Your task to perform on an android device: toggle airplane mode Image 0: 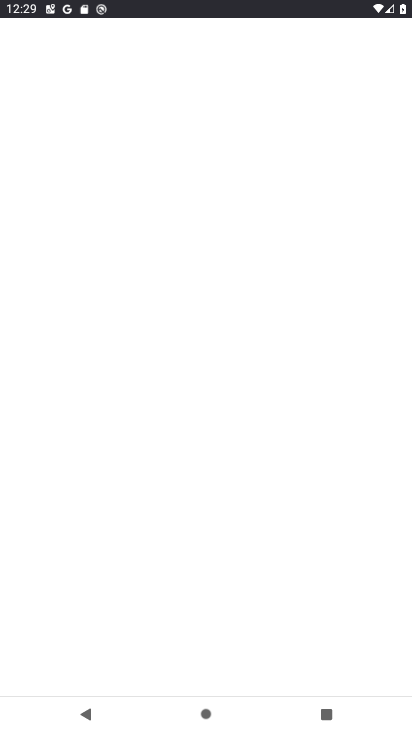
Step 0: press home button
Your task to perform on an android device: toggle airplane mode Image 1: 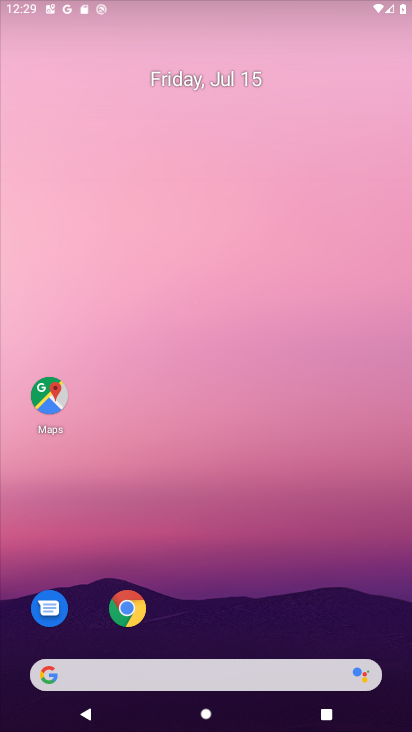
Step 1: drag from (217, 603) to (112, 55)
Your task to perform on an android device: toggle airplane mode Image 2: 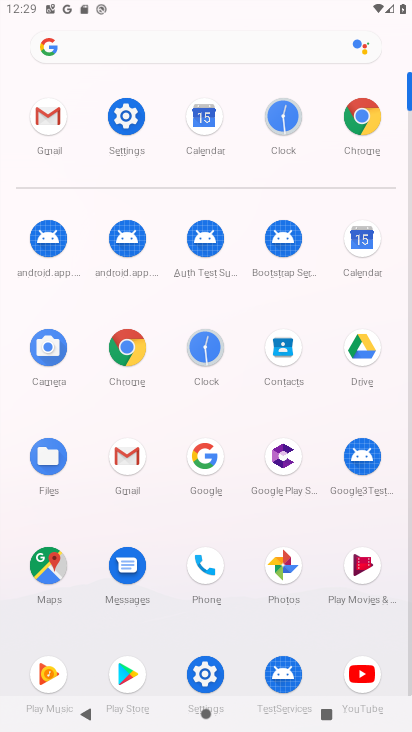
Step 2: click (128, 116)
Your task to perform on an android device: toggle airplane mode Image 3: 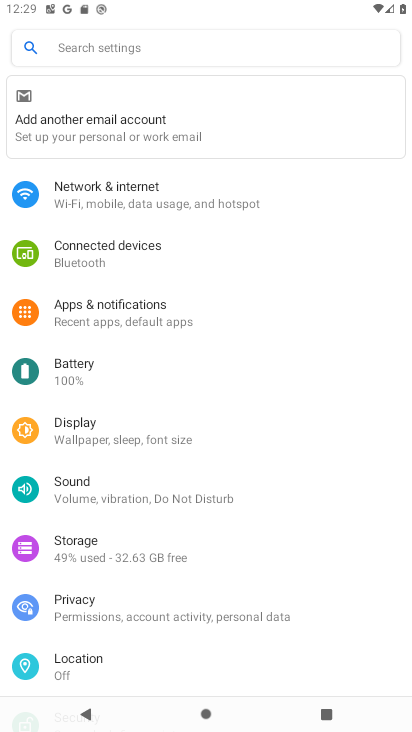
Step 3: click (125, 185)
Your task to perform on an android device: toggle airplane mode Image 4: 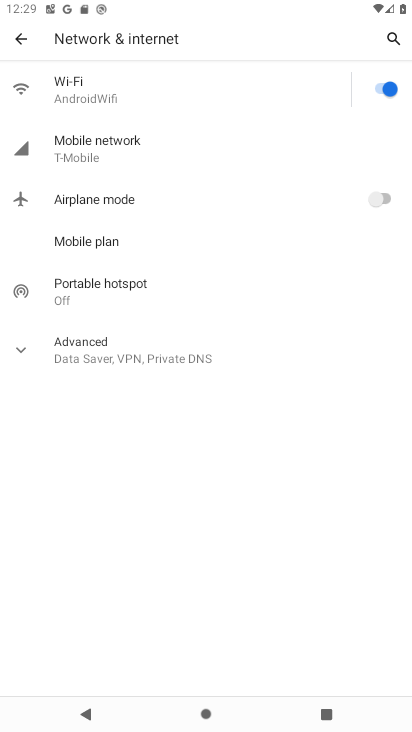
Step 4: click (382, 193)
Your task to perform on an android device: toggle airplane mode Image 5: 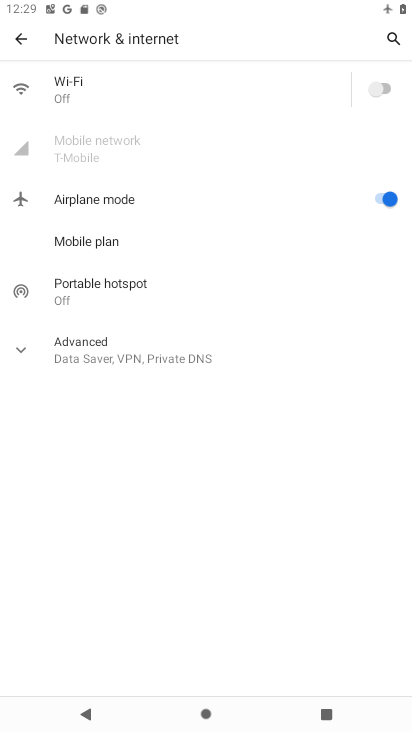
Step 5: task complete